Your task to perform on an android device: Go to Yahoo.com Image 0: 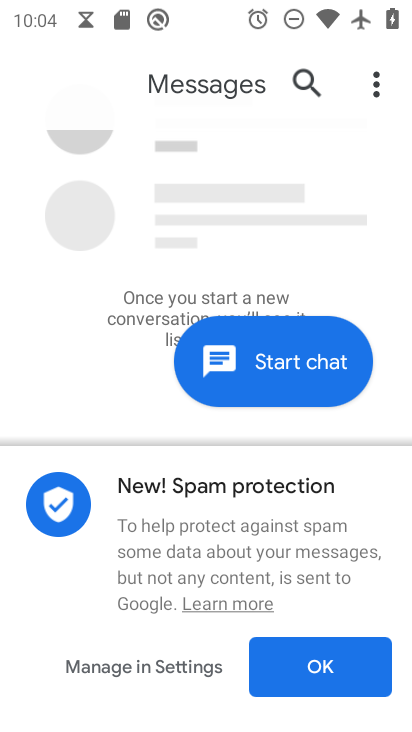
Step 0: press home button
Your task to perform on an android device: Go to Yahoo.com Image 1: 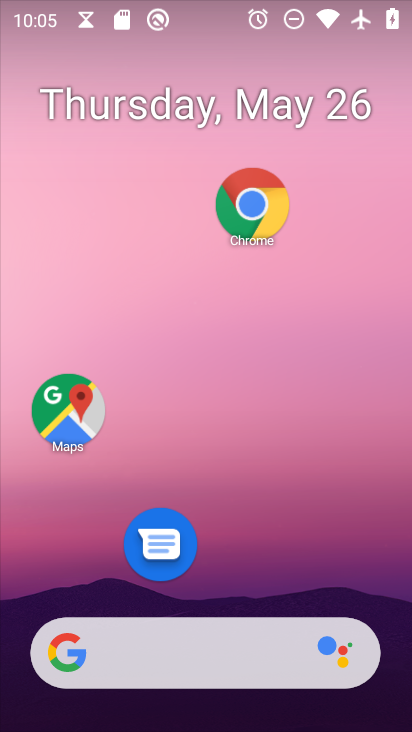
Step 1: click (248, 198)
Your task to perform on an android device: Go to Yahoo.com Image 2: 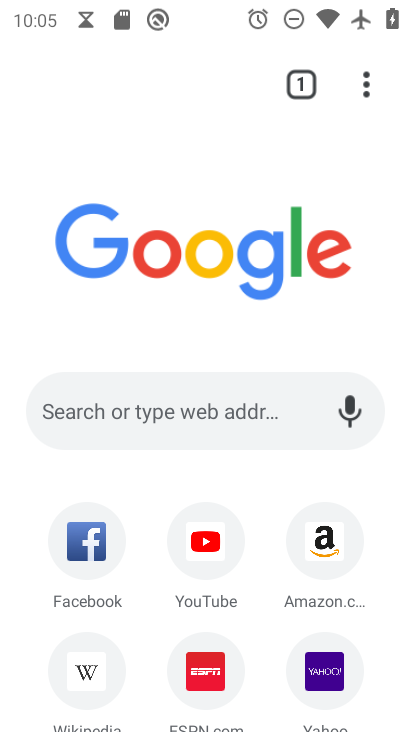
Step 2: click (324, 667)
Your task to perform on an android device: Go to Yahoo.com Image 3: 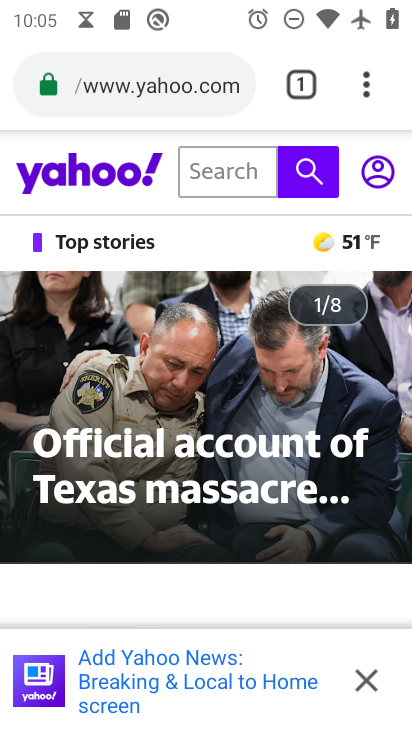
Step 3: click (366, 683)
Your task to perform on an android device: Go to Yahoo.com Image 4: 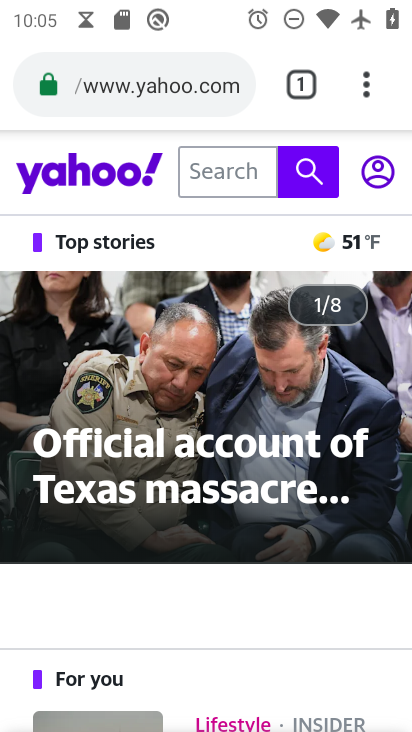
Step 4: task complete